Your task to perform on an android device: Open eBay Image 0: 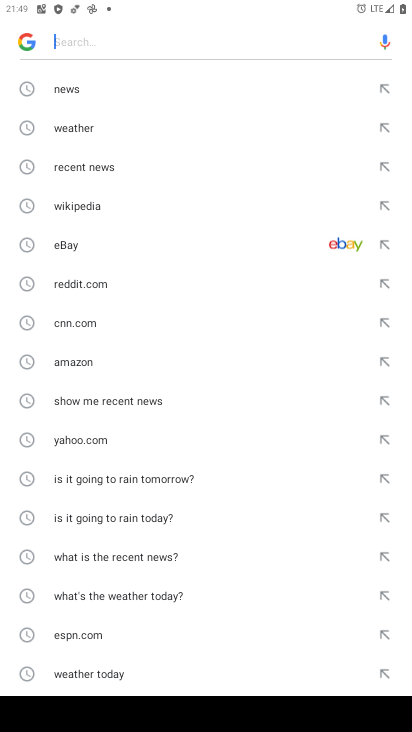
Step 0: click (356, 237)
Your task to perform on an android device: Open eBay Image 1: 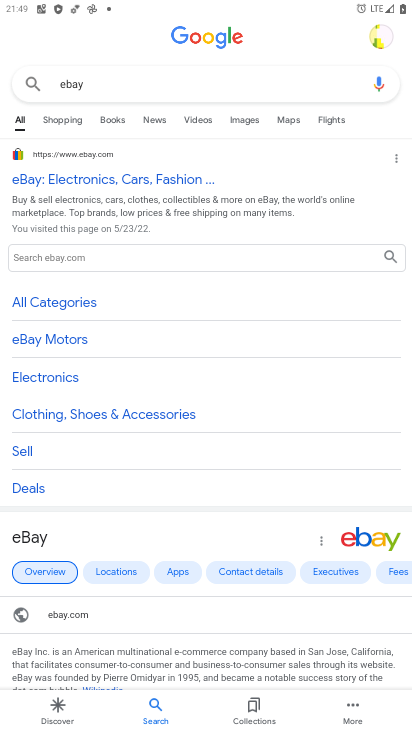
Step 1: click (113, 170)
Your task to perform on an android device: Open eBay Image 2: 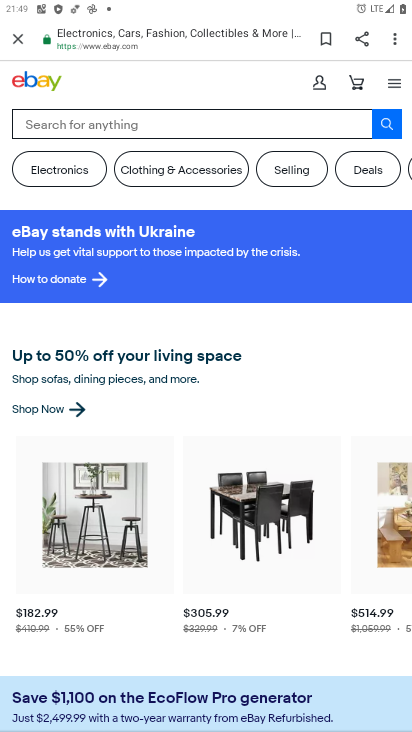
Step 2: task complete